Your task to perform on an android device: turn off picture-in-picture Image 0: 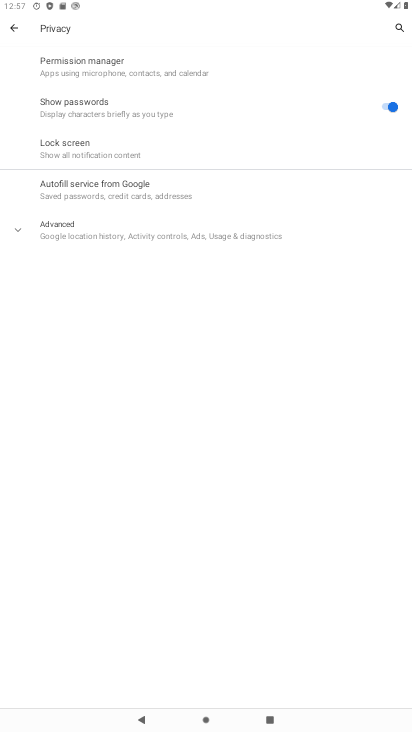
Step 0: press home button
Your task to perform on an android device: turn off picture-in-picture Image 1: 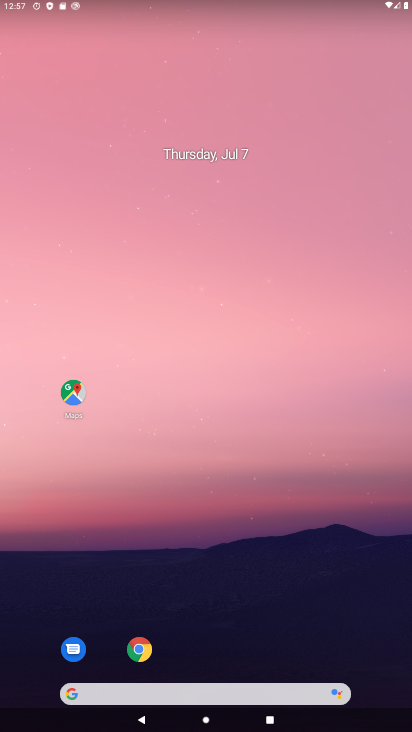
Step 1: drag from (235, 673) to (191, 10)
Your task to perform on an android device: turn off picture-in-picture Image 2: 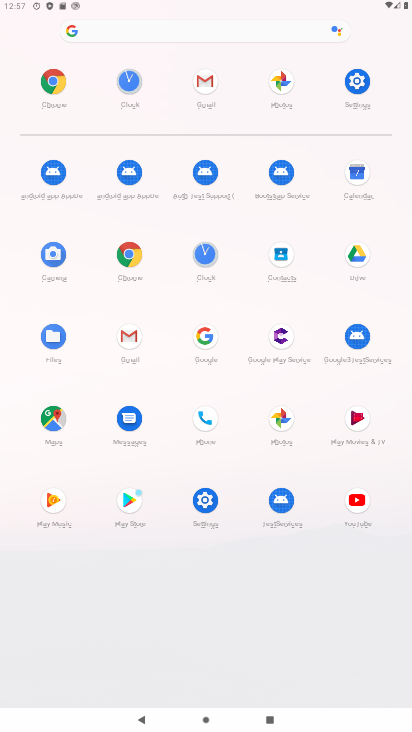
Step 2: click (213, 485)
Your task to perform on an android device: turn off picture-in-picture Image 3: 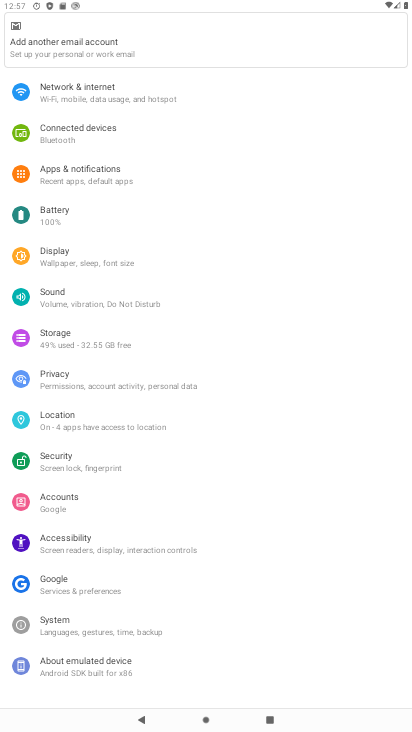
Step 3: click (78, 181)
Your task to perform on an android device: turn off picture-in-picture Image 4: 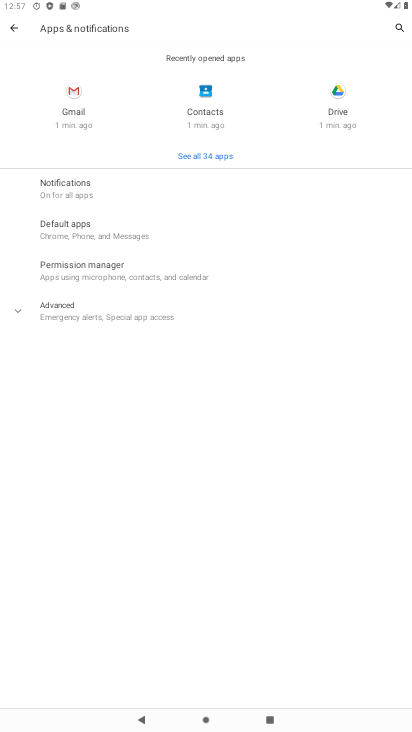
Step 4: click (78, 181)
Your task to perform on an android device: turn off picture-in-picture Image 5: 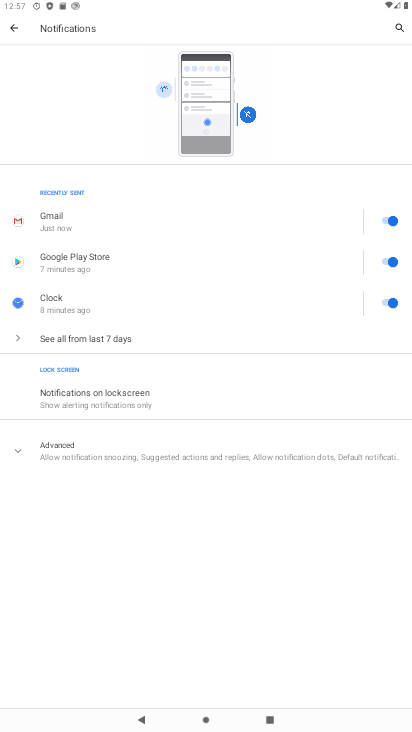
Step 5: click (107, 455)
Your task to perform on an android device: turn off picture-in-picture Image 6: 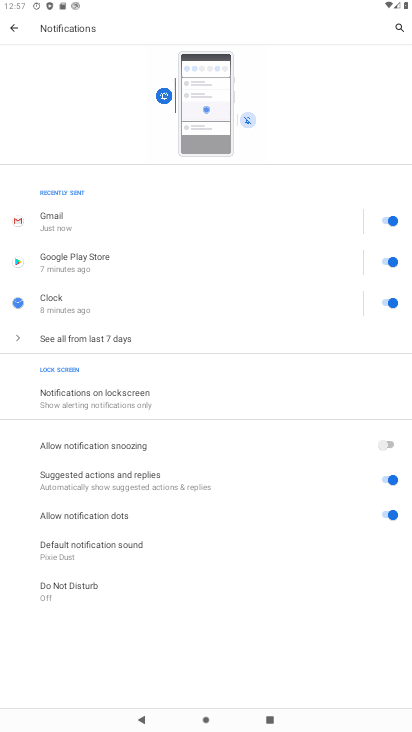
Step 6: task complete